Your task to perform on an android device: turn on the 12-hour format for clock Image 0: 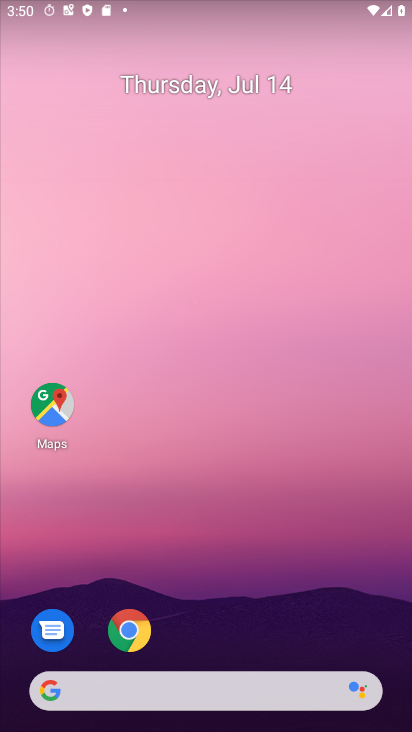
Step 0: drag from (209, 725) to (204, 158)
Your task to perform on an android device: turn on the 12-hour format for clock Image 1: 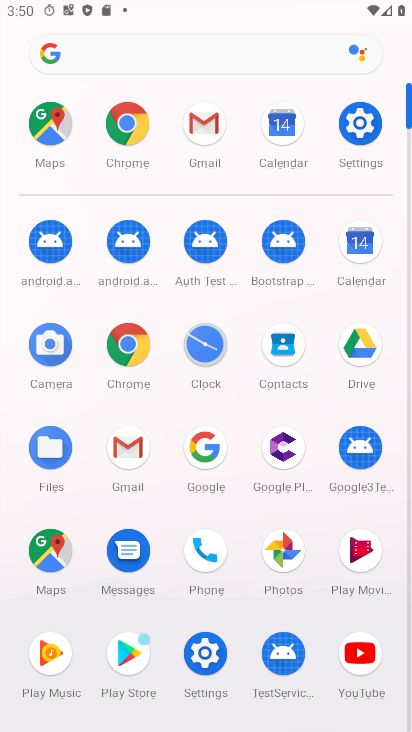
Step 1: click (208, 343)
Your task to perform on an android device: turn on the 12-hour format for clock Image 2: 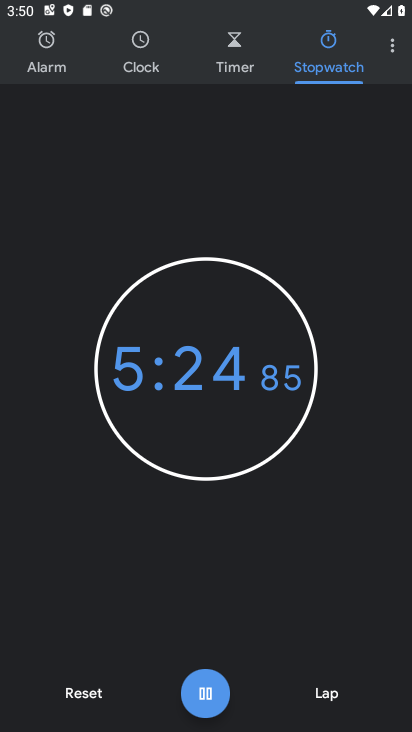
Step 2: click (394, 50)
Your task to perform on an android device: turn on the 12-hour format for clock Image 3: 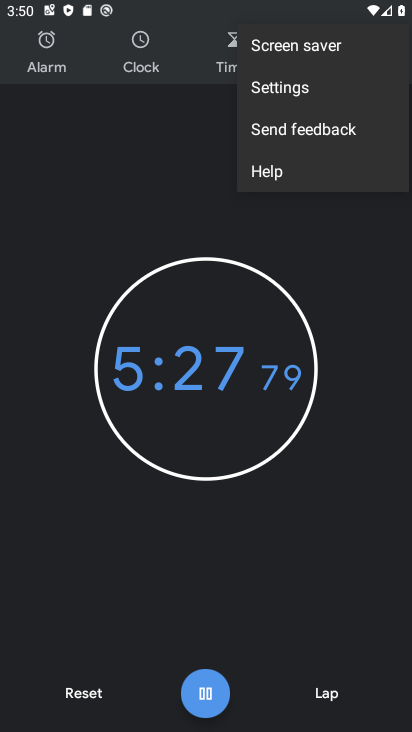
Step 3: click (278, 90)
Your task to perform on an android device: turn on the 12-hour format for clock Image 4: 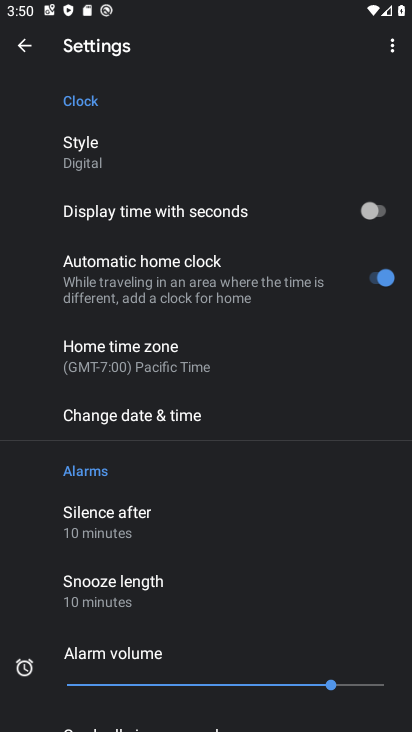
Step 4: click (151, 413)
Your task to perform on an android device: turn on the 12-hour format for clock Image 5: 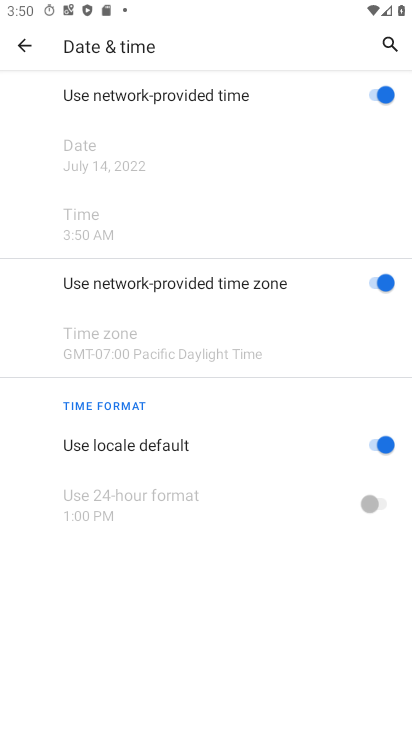
Step 5: task complete